Your task to perform on an android device: open device folders in google photos Image 0: 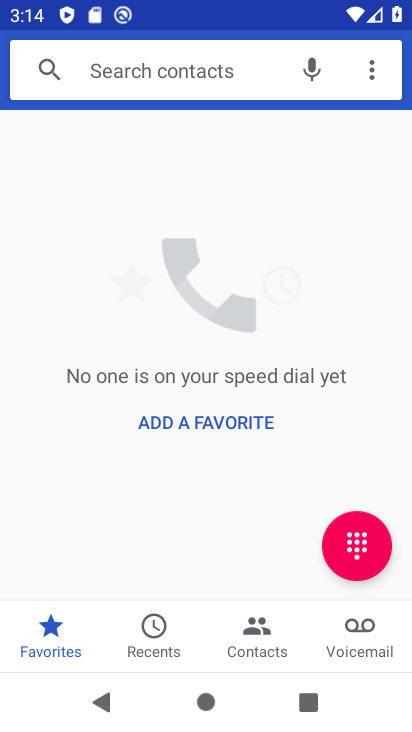
Step 0: press home button
Your task to perform on an android device: open device folders in google photos Image 1: 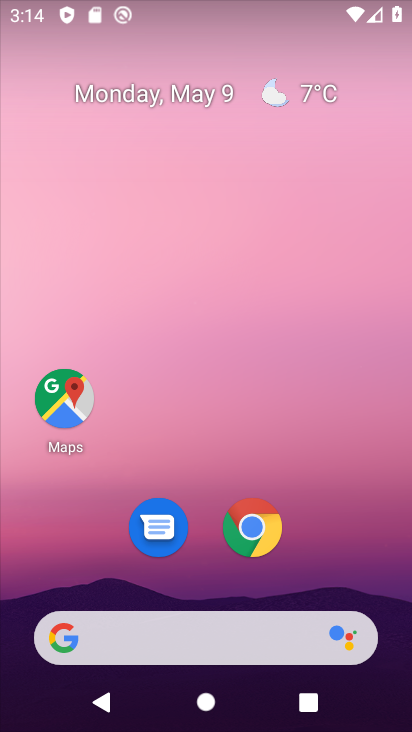
Step 1: drag from (380, 553) to (299, 163)
Your task to perform on an android device: open device folders in google photos Image 2: 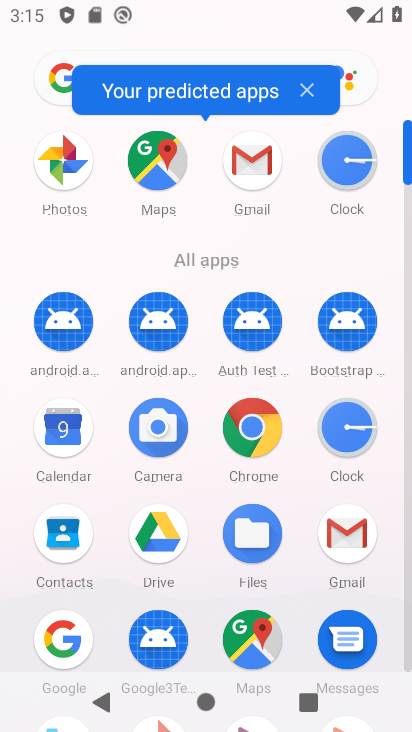
Step 2: click (65, 159)
Your task to perform on an android device: open device folders in google photos Image 3: 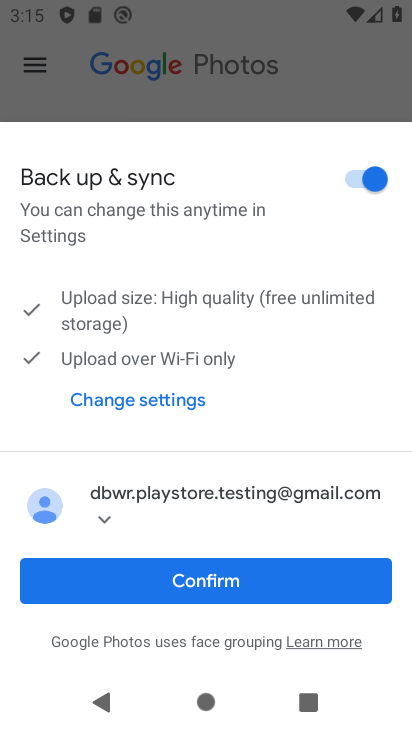
Step 3: click (210, 581)
Your task to perform on an android device: open device folders in google photos Image 4: 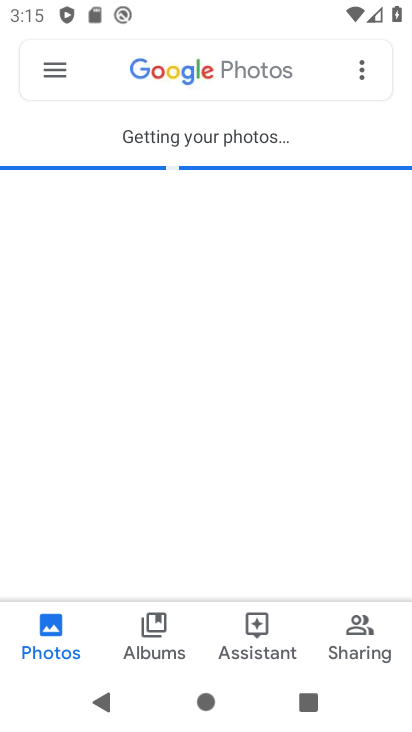
Step 4: click (45, 59)
Your task to perform on an android device: open device folders in google photos Image 5: 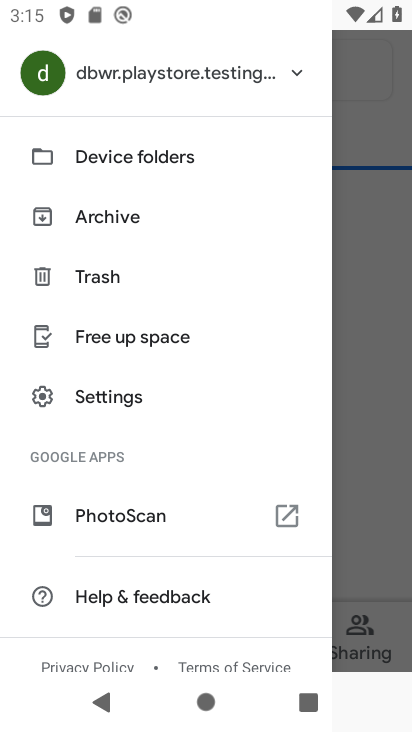
Step 5: click (91, 146)
Your task to perform on an android device: open device folders in google photos Image 6: 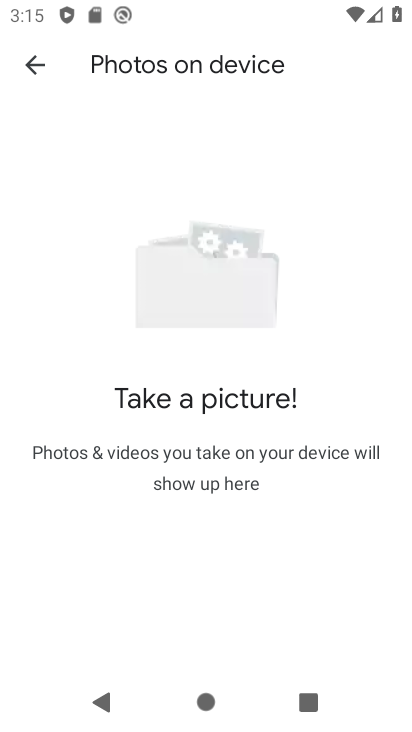
Step 6: task complete